Your task to perform on an android device: Clear the shopping cart on amazon.com. Image 0: 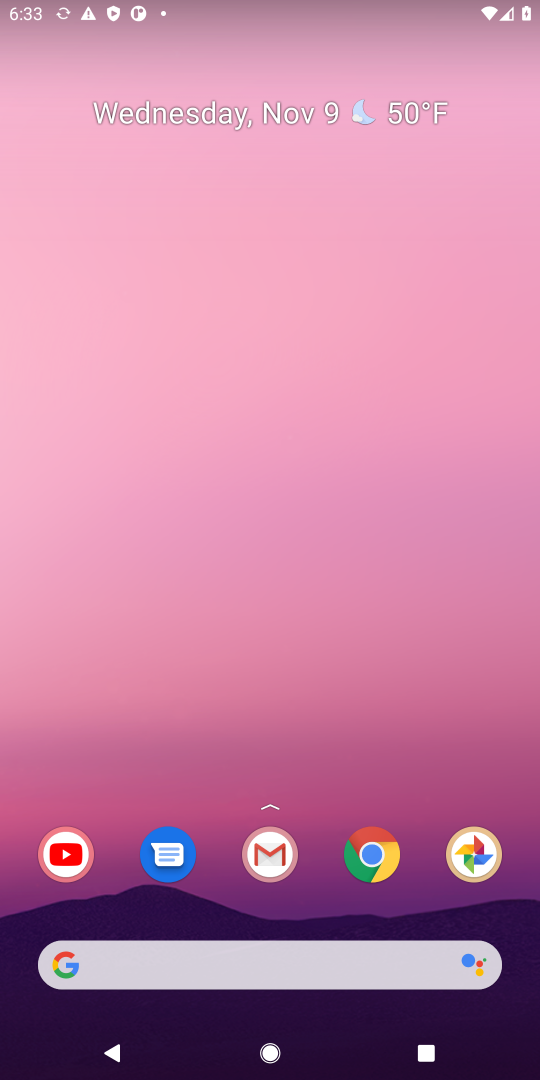
Step 0: click (273, 961)
Your task to perform on an android device: Clear the shopping cart on amazon.com. Image 1: 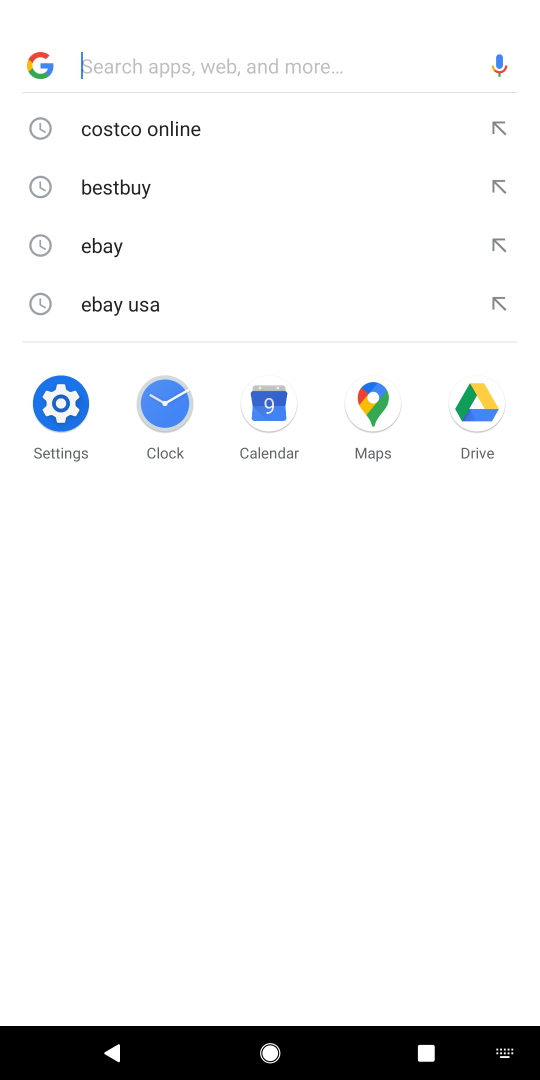
Step 1: type "amazon"
Your task to perform on an android device: Clear the shopping cart on amazon.com. Image 2: 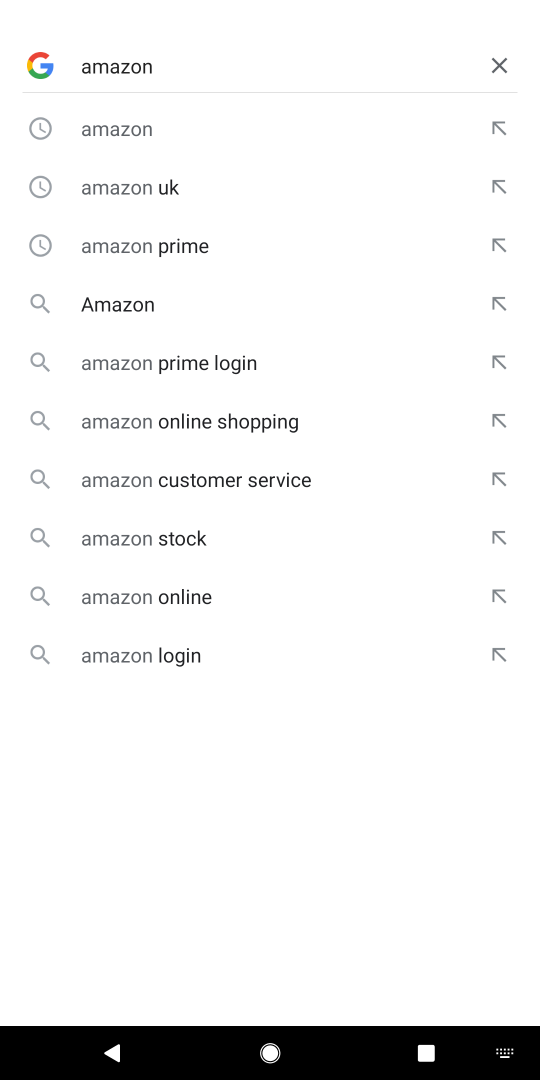
Step 2: click (233, 133)
Your task to perform on an android device: Clear the shopping cart on amazon.com. Image 3: 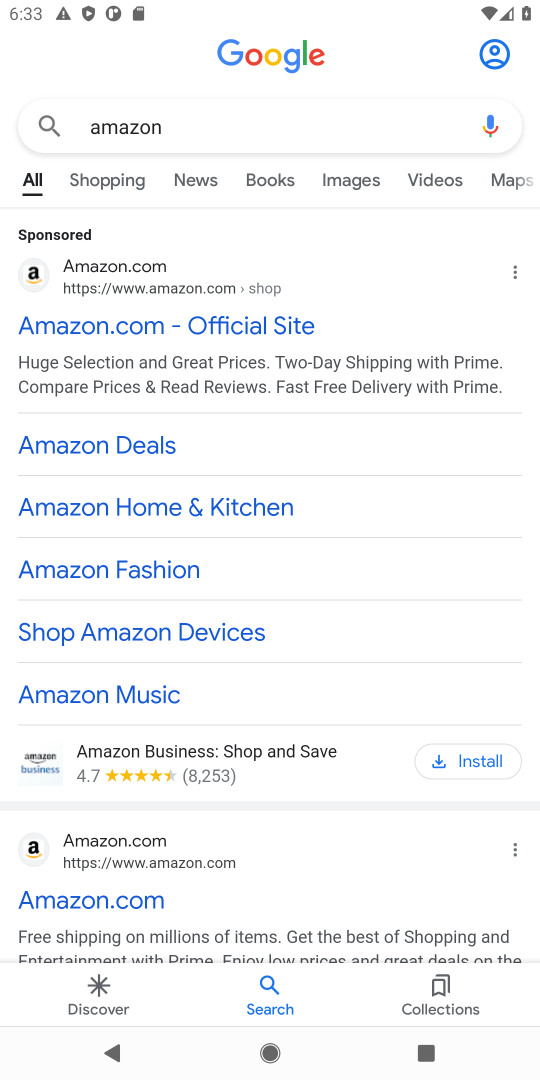
Step 3: click (227, 336)
Your task to perform on an android device: Clear the shopping cart on amazon.com. Image 4: 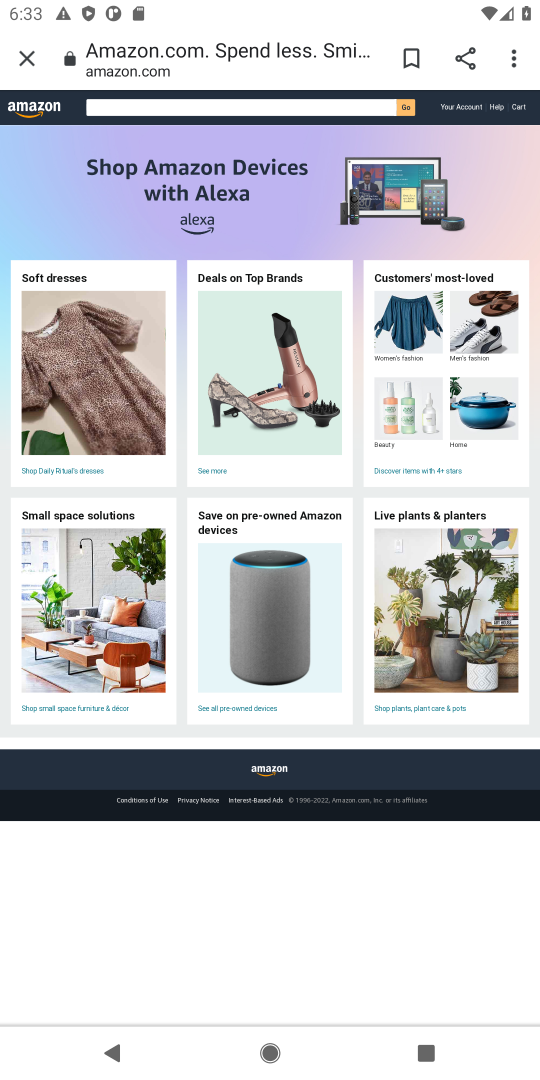
Step 4: task complete